Your task to perform on an android device: What is the recent news? Image 0: 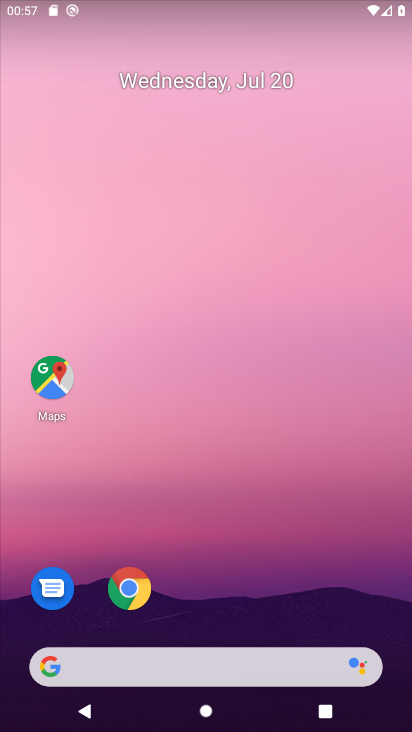
Step 0: drag from (208, 489) to (173, 203)
Your task to perform on an android device: What is the recent news? Image 1: 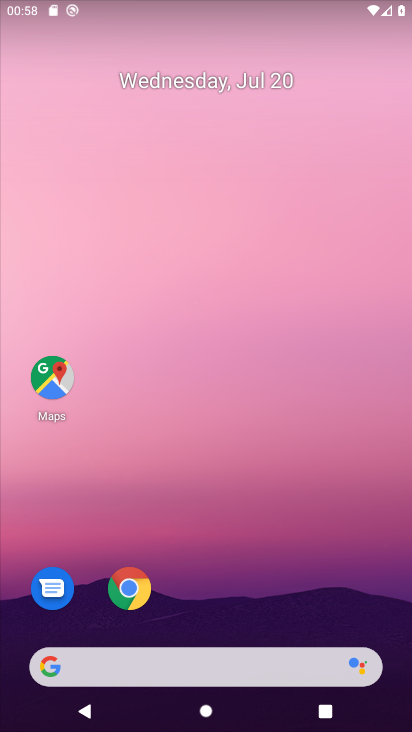
Step 1: drag from (216, 636) to (219, 219)
Your task to perform on an android device: What is the recent news? Image 2: 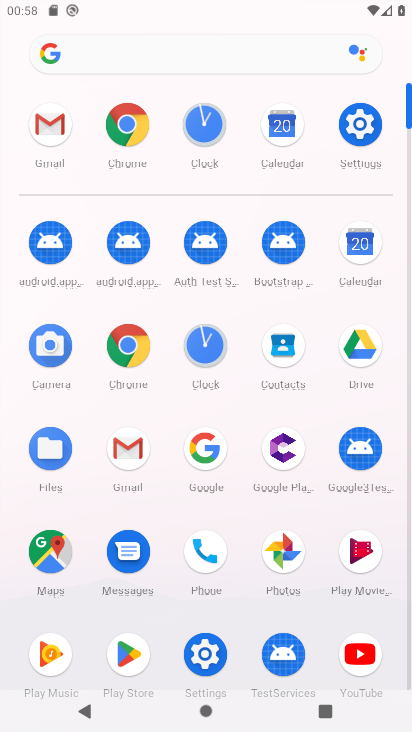
Step 2: click (131, 122)
Your task to perform on an android device: What is the recent news? Image 3: 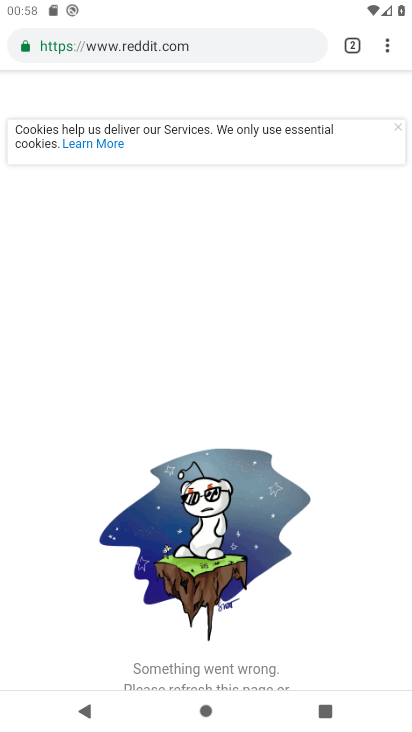
Step 3: click (387, 48)
Your task to perform on an android device: What is the recent news? Image 4: 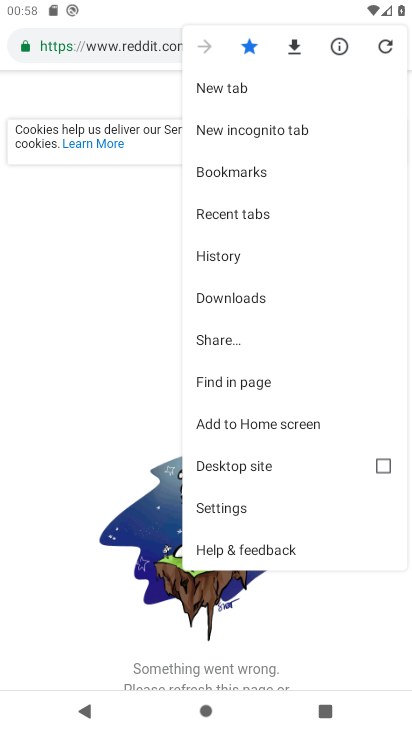
Step 4: click (235, 86)
Your task to perform on an android device: What is the recent news? Image 5: 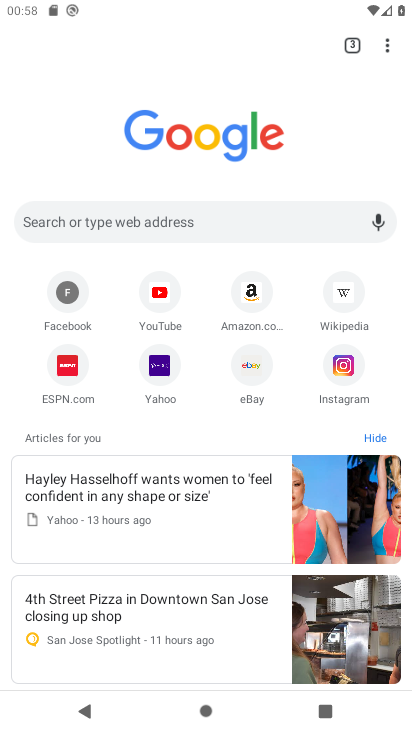
Step 5: click (257, 218)
Your task to perform on an android device: What is the recent news? Image 6: 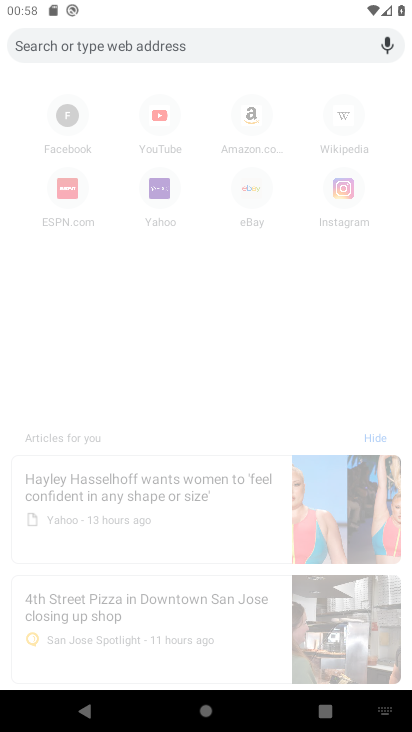
Step 6: type "What is the recent news "
Your task to perform on an android device: What is the recent news? Image 7: 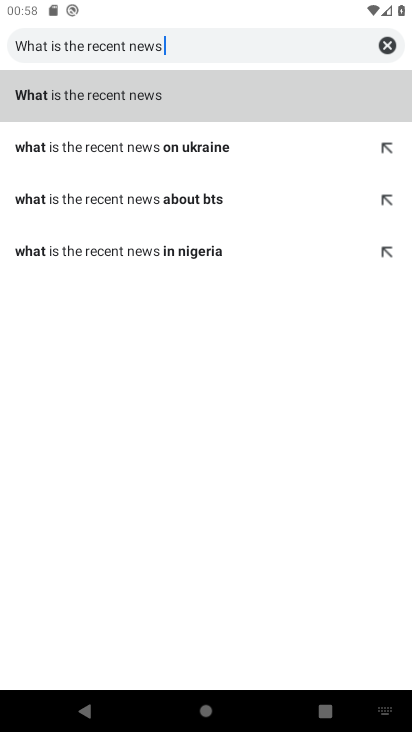
Step 7: click (93, 82)
Your task to perform on an android device: What is the recent news? Image 8: 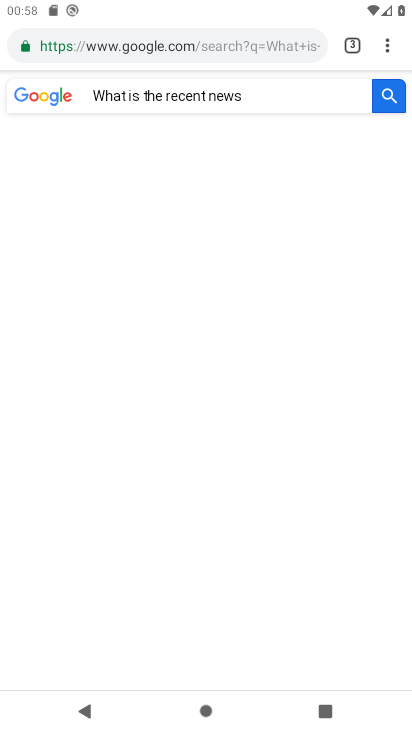
Step 8: task complete